Your task to perform on an android device: toggle notification dots Image 0: 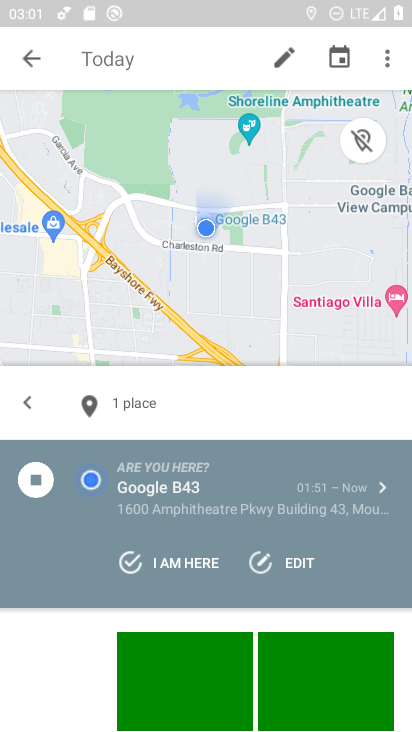
Step 0: press home button
Your task to perform on an android device: toggle notification dots Image 1: 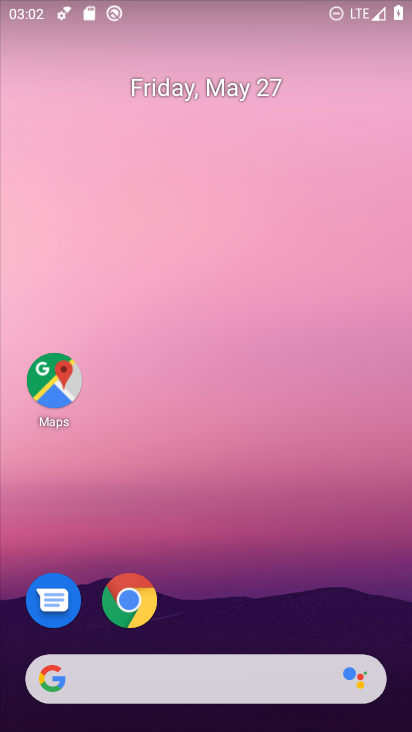
Step 1: drag from (220, 728) to (229, 20)
Your task to perform on an android device: toggle notification dots Image 2: 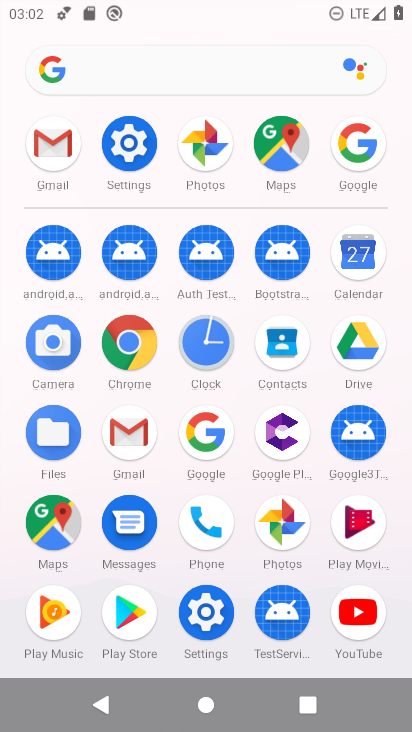
Step 2: click (132, 141)
Your task to perform on an android device: toggle notification dots Image 3: 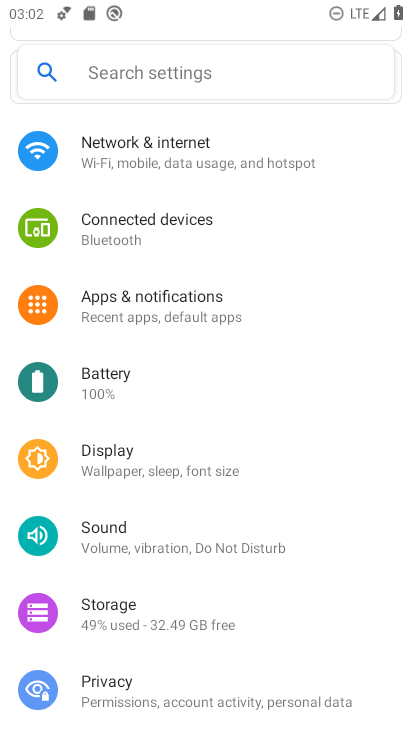
Step 3: click (159, 307)
Your task to perform on an android device: toggle notification dots Image 4: 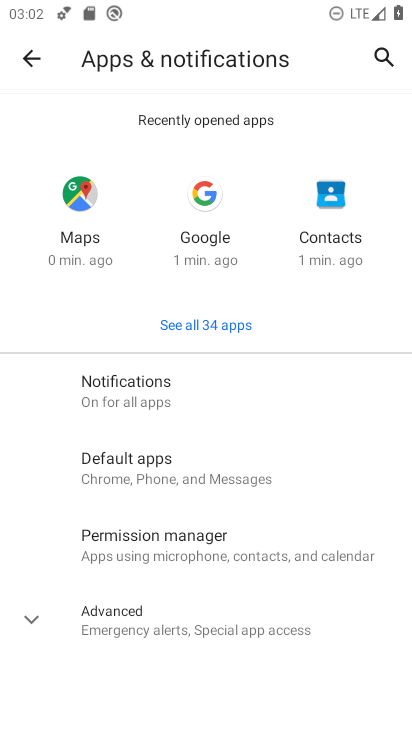
Step 4: click (148, 393)
Your task to perform on an android device: toggle notification dots Image 5: 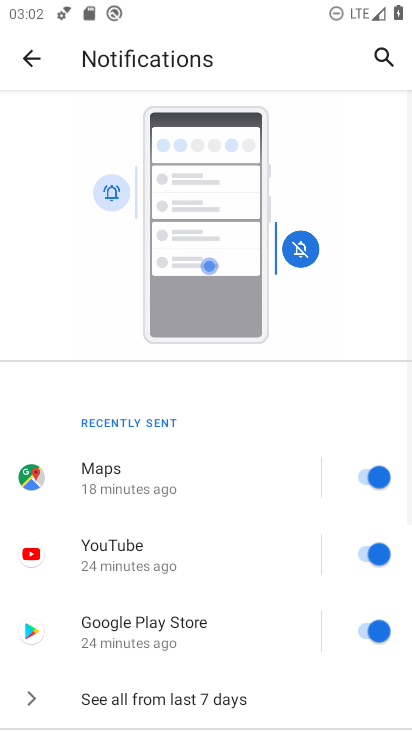
Step 5: drag from (237, 700) to (236, 289)
Your task to perform on an android device: toggle notification dots Image 6: 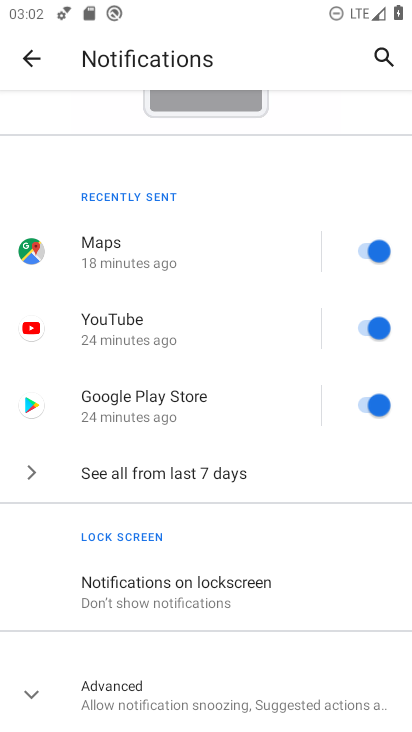
Step 6: click (135, 692)
Your task to perform on an android device: toggle notification dots Image 7: 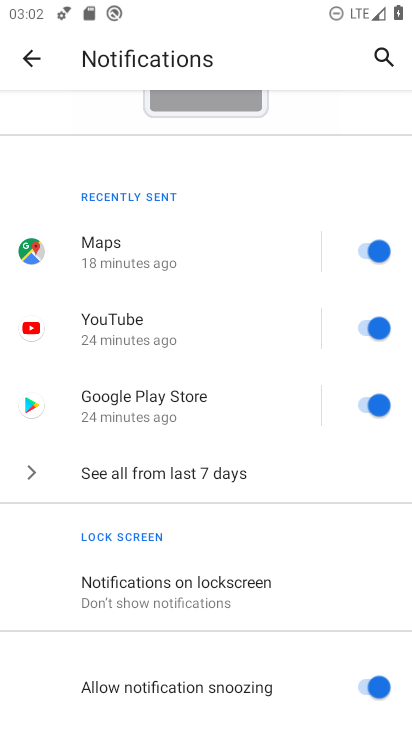
Step 7: drag from (209, 697) to (204, 367)
Your task to perform on an android device: toggle notification dots Image 8: 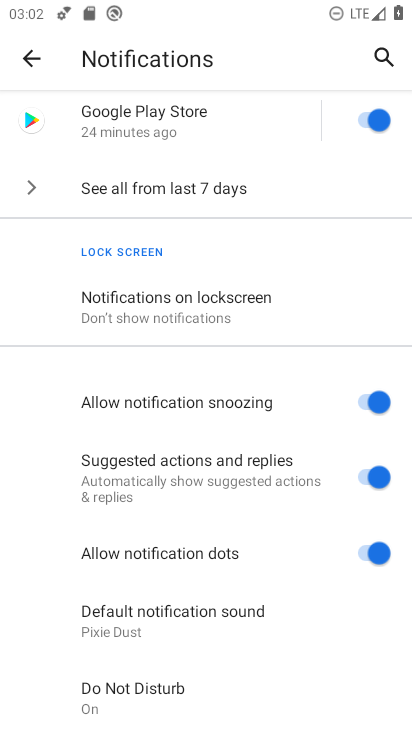
Step 8: drag from (174, 666) to (179, 372)
Your task to perform on an android device: toggle notification dots Image 9: 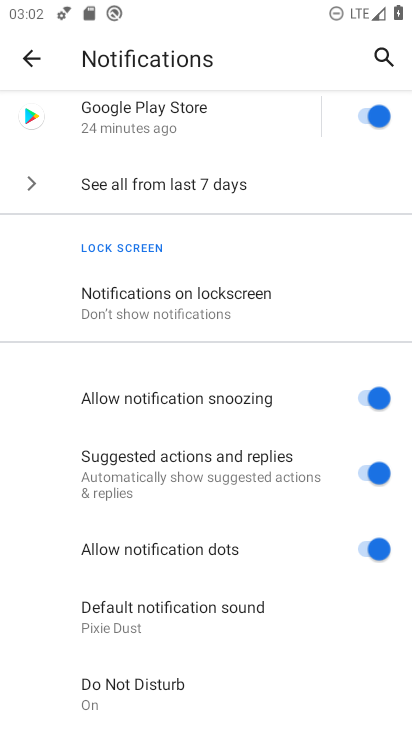
Step 9: click (374, 549)
Your task to perform on an android device: toggle notification dots Image 10: 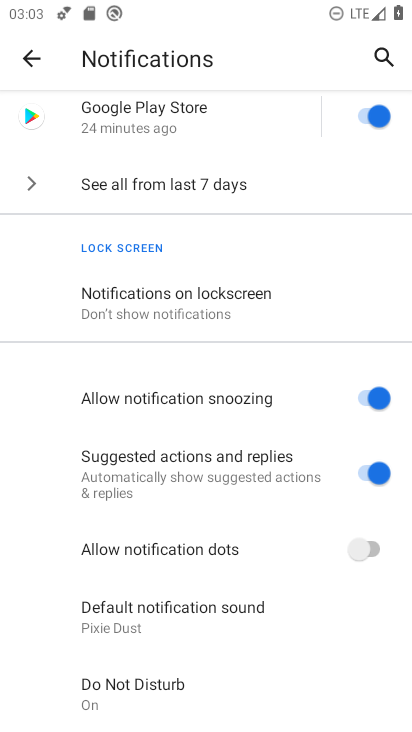
Step 10: task complete